Your task to perform on an android device: turn on airplane mode Image 0: 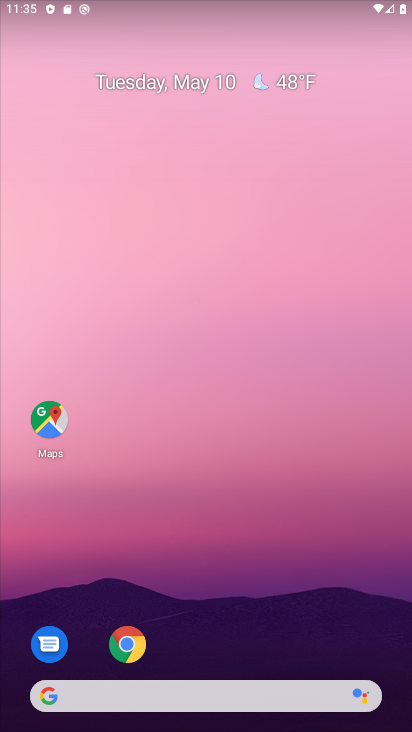
Step 0: drag from (226, 618) to (307, 119)
Your task to perform on an android device: turn on airplane mode Image 1: 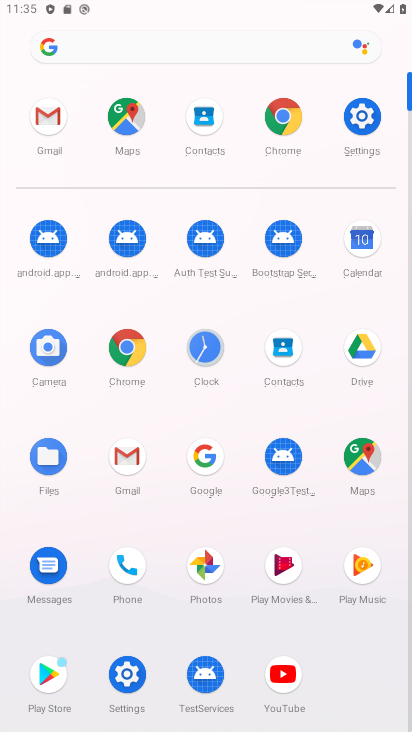
Step 1: click (361, 138)
Your task to perform on an android device: turn on airplane mode Image 2: 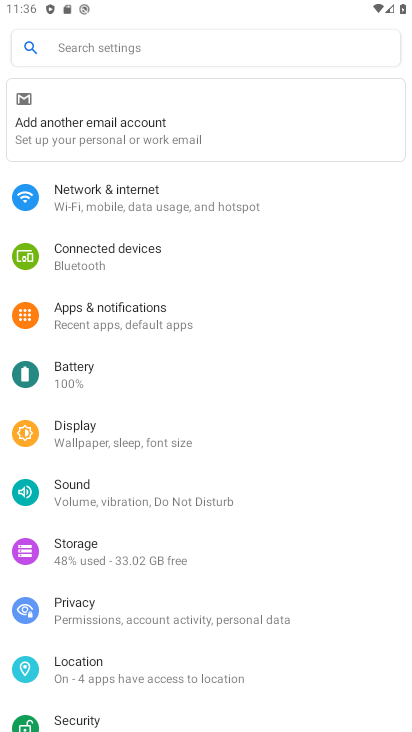
Step 2: click (177, 206)
Your task to perform on an android device: turn on airplane mode Image 3: 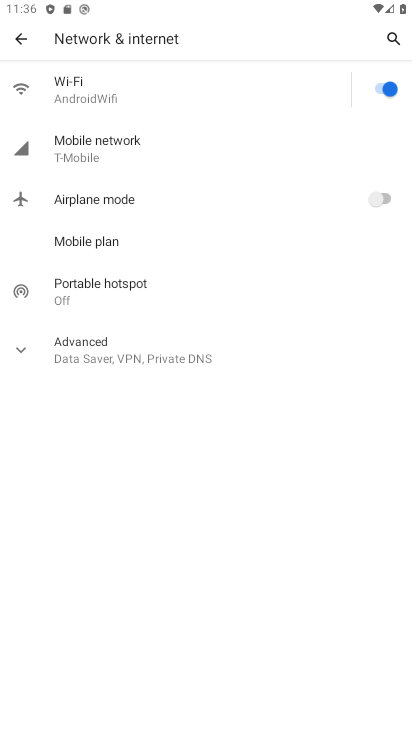
Step 3: click (397, 194)
Your task to perform on an android device: turn on airplane mode Image 4: 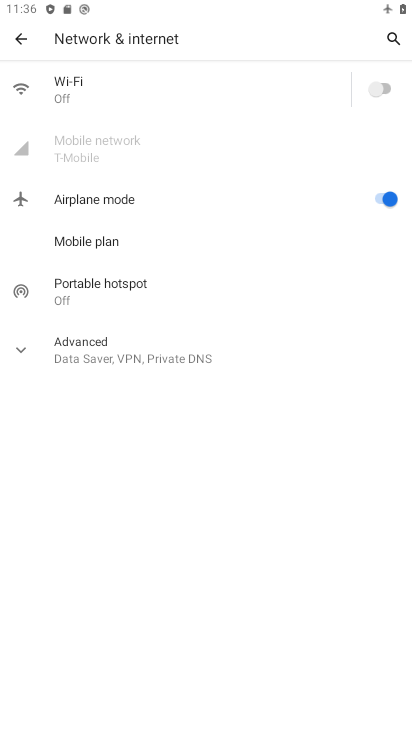
Step 4: task complete